Your task to perform on an android device: turn off location history Image 0: 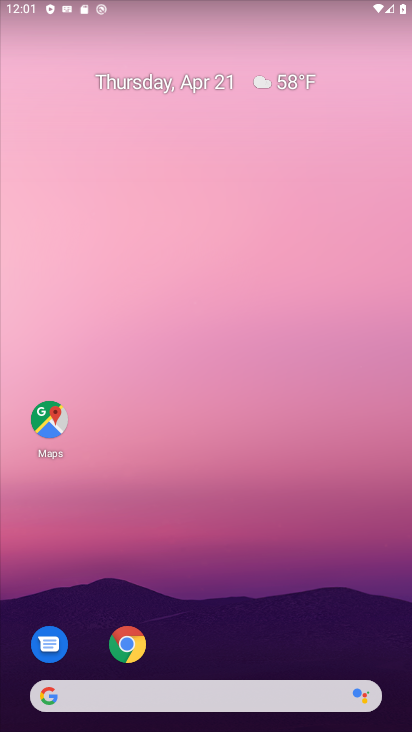
Step 0: drag from (186, 650) to (198, 154)
Your task to perform on an android device: turn off location history Image 1: 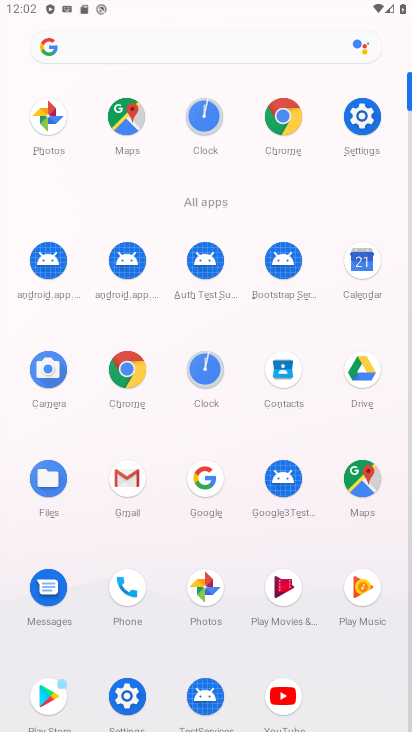
Step 1: click (364, 123)
Your task to perform on an android device: turn off location history Image 2: 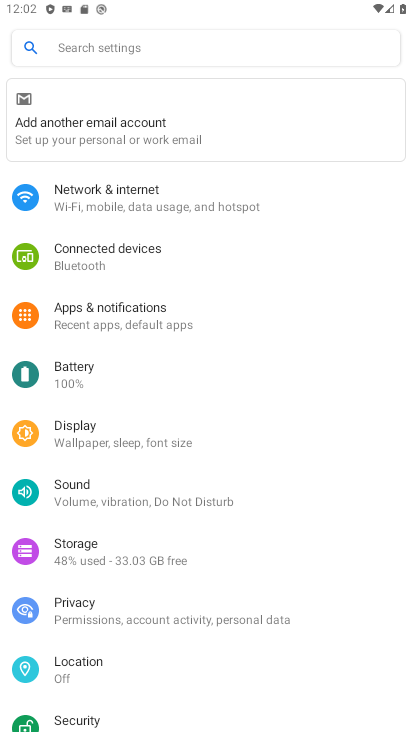
Step 2: click (95, 669)
Your task to perform on an android device: turn off location history Image 3: 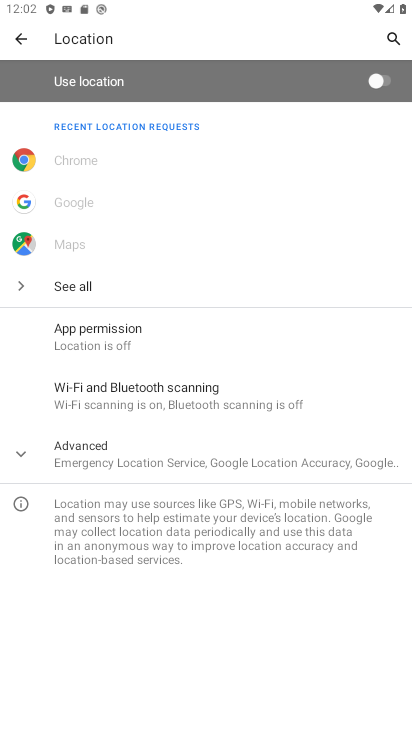
Step 3: task complete